Your task to perform on an android device: Search for vegetarian restaurants on Maps Image 0: 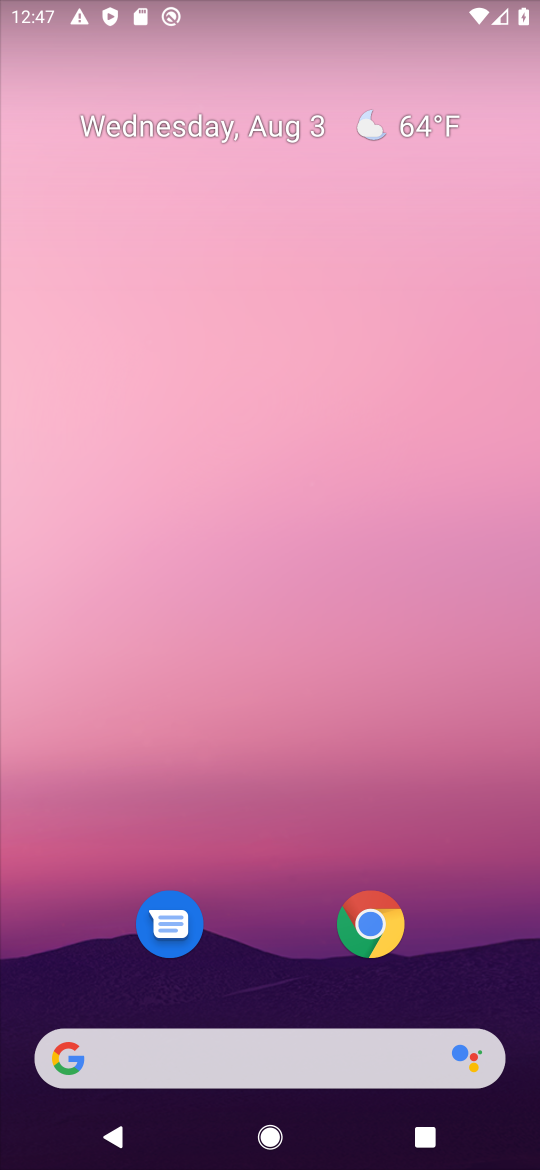
Step 0: drag from (249, 1011) to (449, 103)
Your task to perform on an android device: Search for vegetarian restaurants on Maps Image 1: 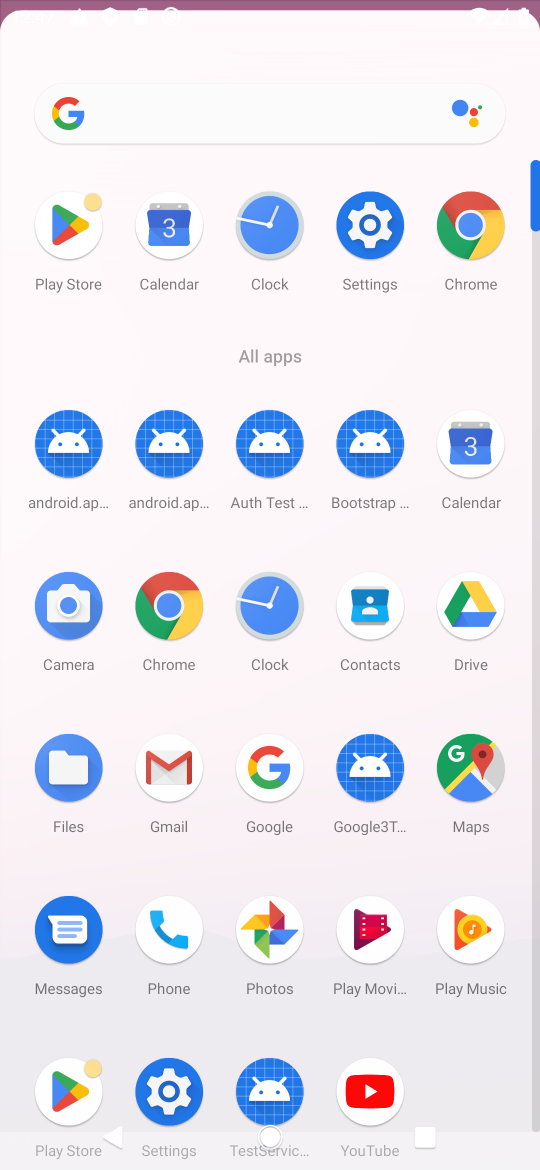
Step 1: click (465, 739)
Your task to perform on an android device: Search for vegetarian restaurants on Maps Image 2: 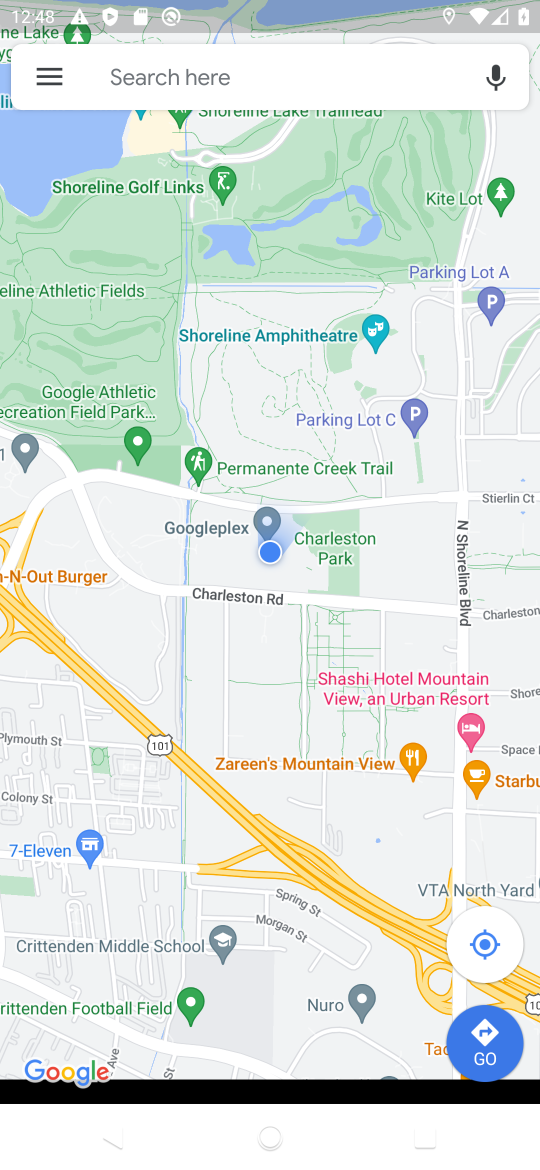
Step 2: click (250, 72)
Your task to perform on an android device: Search for vegetarian restaurants on Maps Image 3: 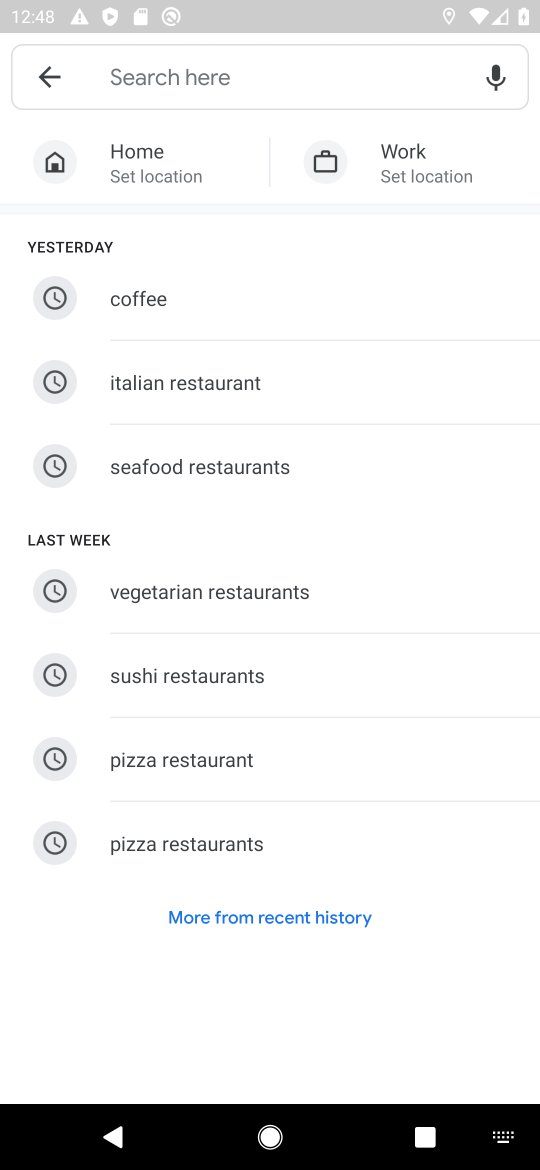
Step 3: click (158, 577)
Your task to perform on an android device: Search for vegetarian restaurants on Maps Image 4: 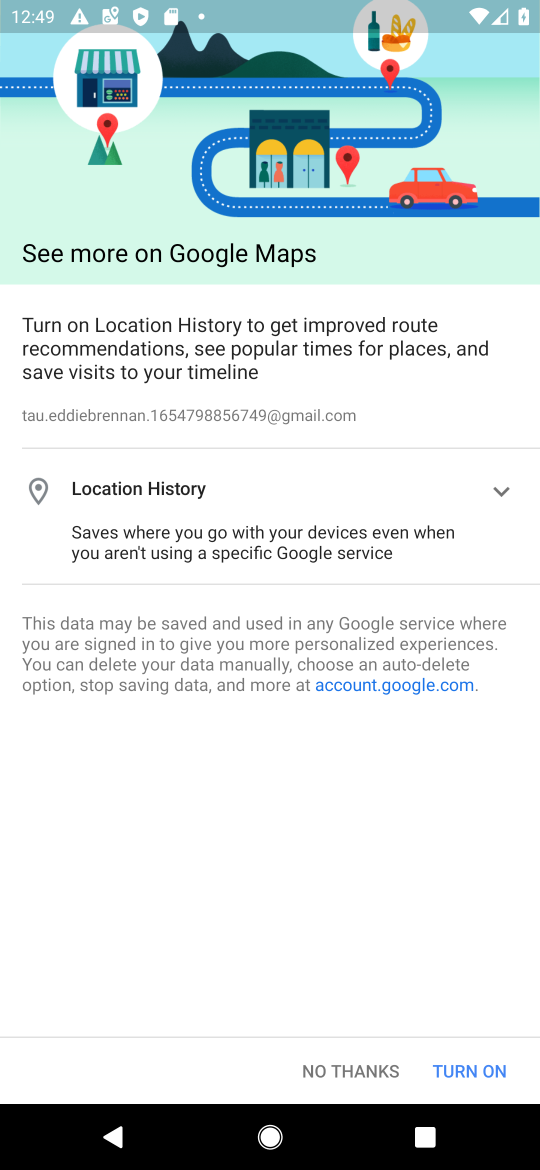
Step 4: click (341, 1074)
Your task to perform on an android device: Search for vegetarian restaurants on Maps Image 5: 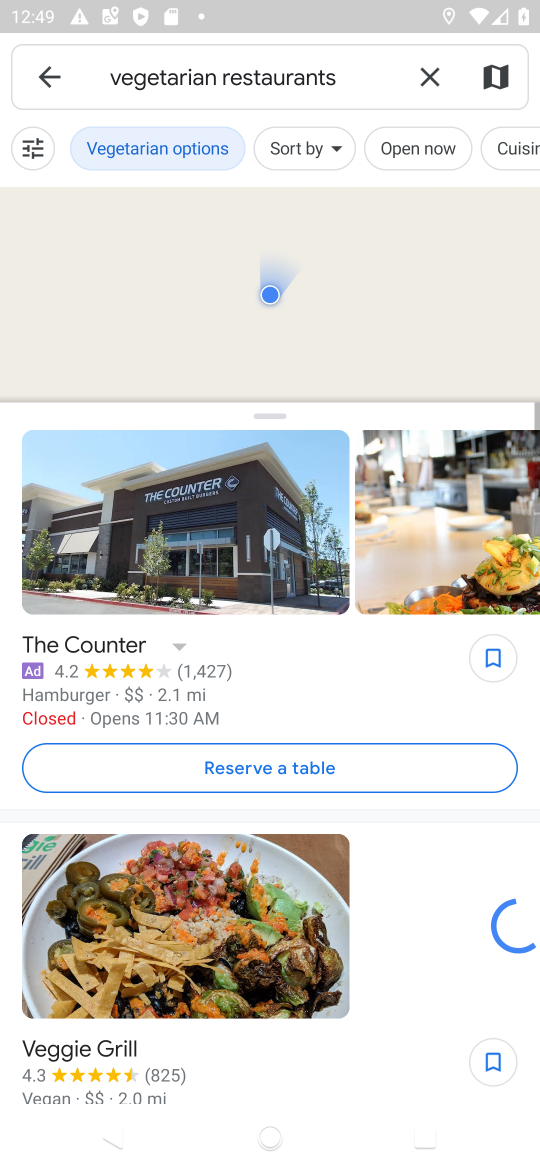
Step 5: task complete